Your task to perform on an android device: Open privacy settings Image 0: 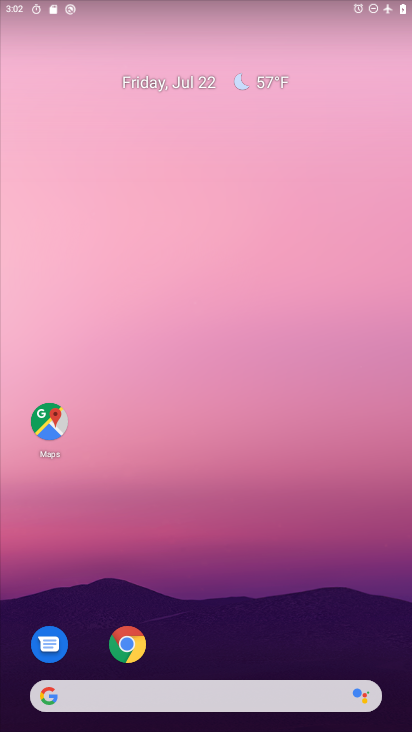
Step 0: drag from (218, 652) to (260, 294)
Your task to perform on an android device: Open privacy settings Image 1: 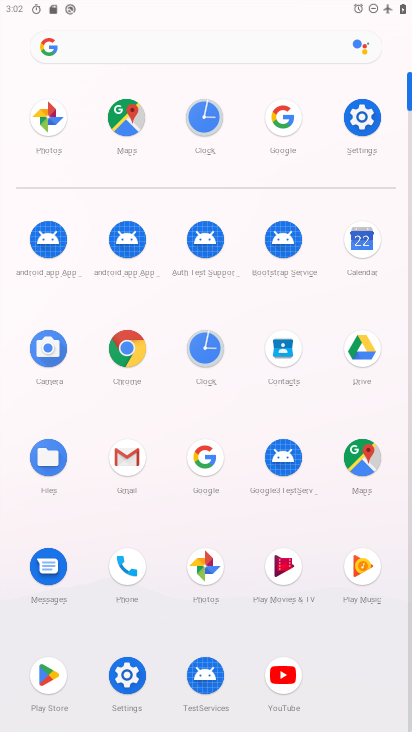
Step 1: click (373, 126)
Your task to perform on an android device: Open privacy settings Image 2: 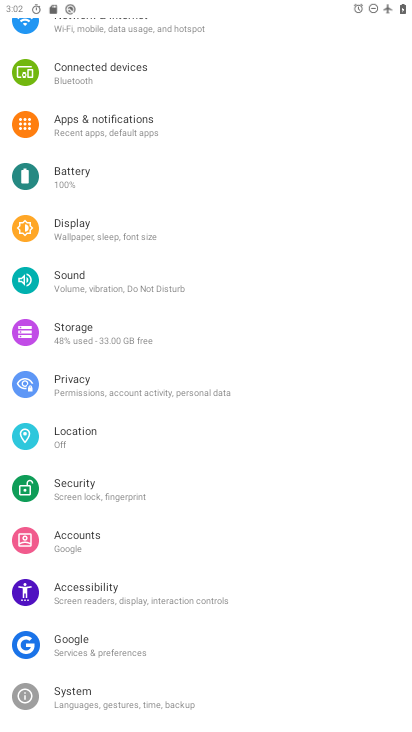
Step 2: click (93, 382)
Your task to perform on an android device: Open privacy settings Image 3: 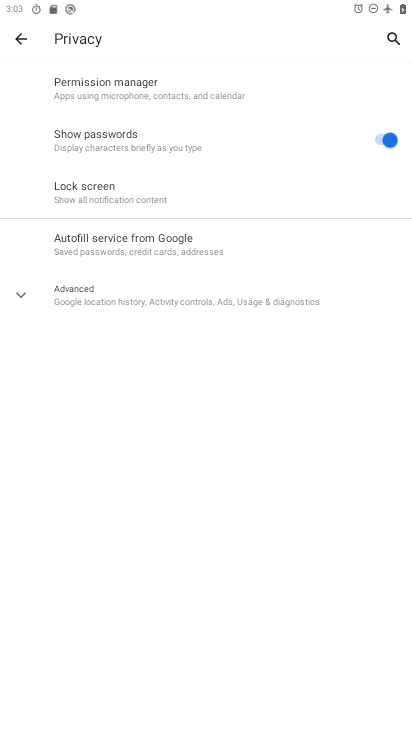
Step 3: task complete